Your task to perform on an android device: Search for vegetarian restaurants on Maps Image 0: 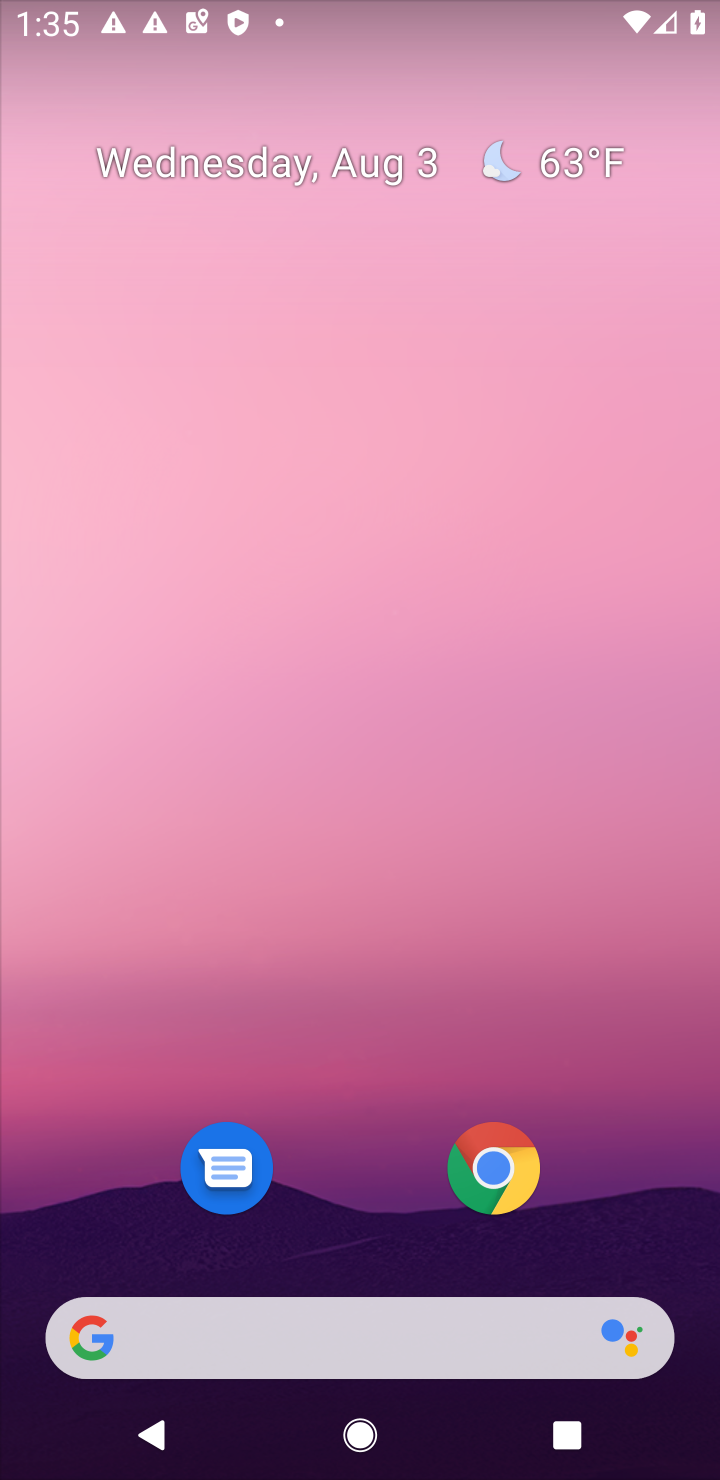
Step 0: drag from (683, 1267) to (599, 389)
Your task to perform on an android device: Search for vegetarian restaurants on Maps Image 1: 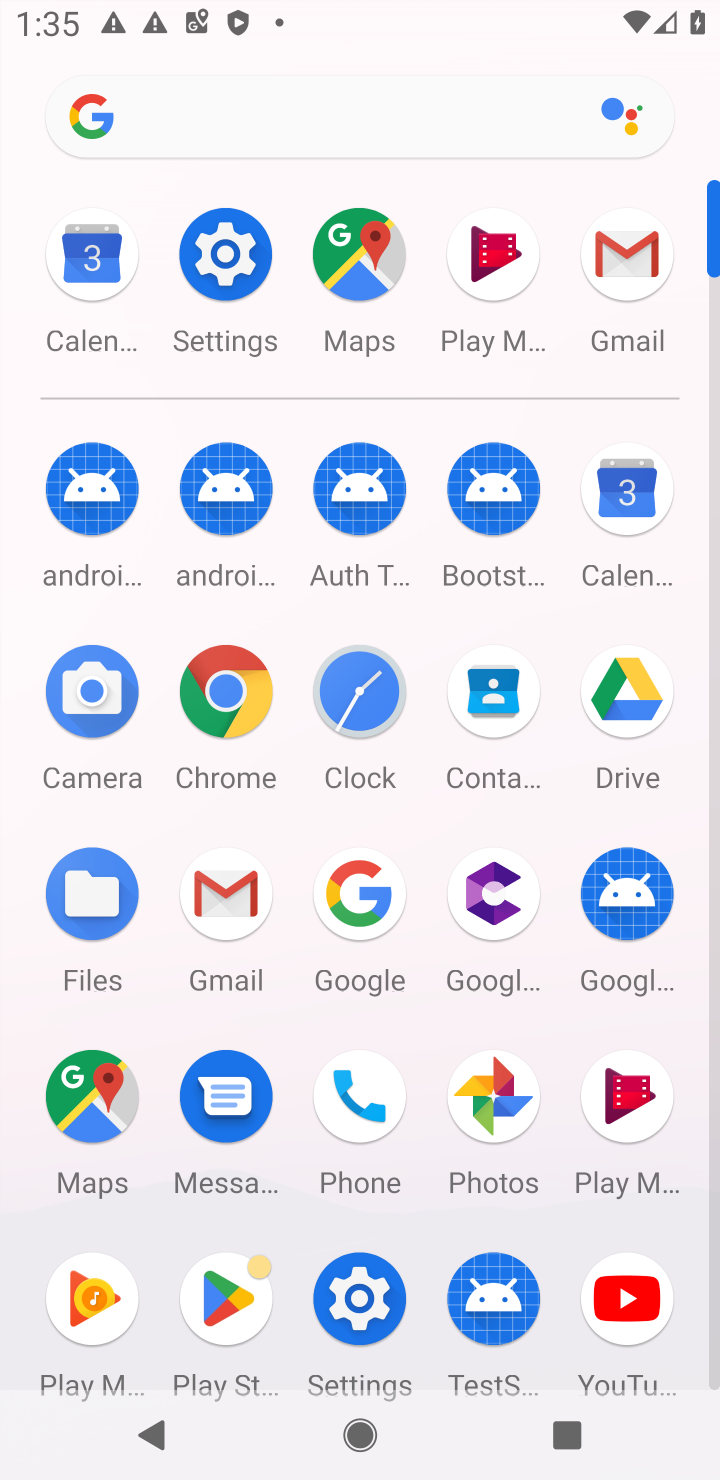
Step 1: click (88, 1102)
Your task to perform on an android device: Search for vegetarian restaurants on Maps Image 2: 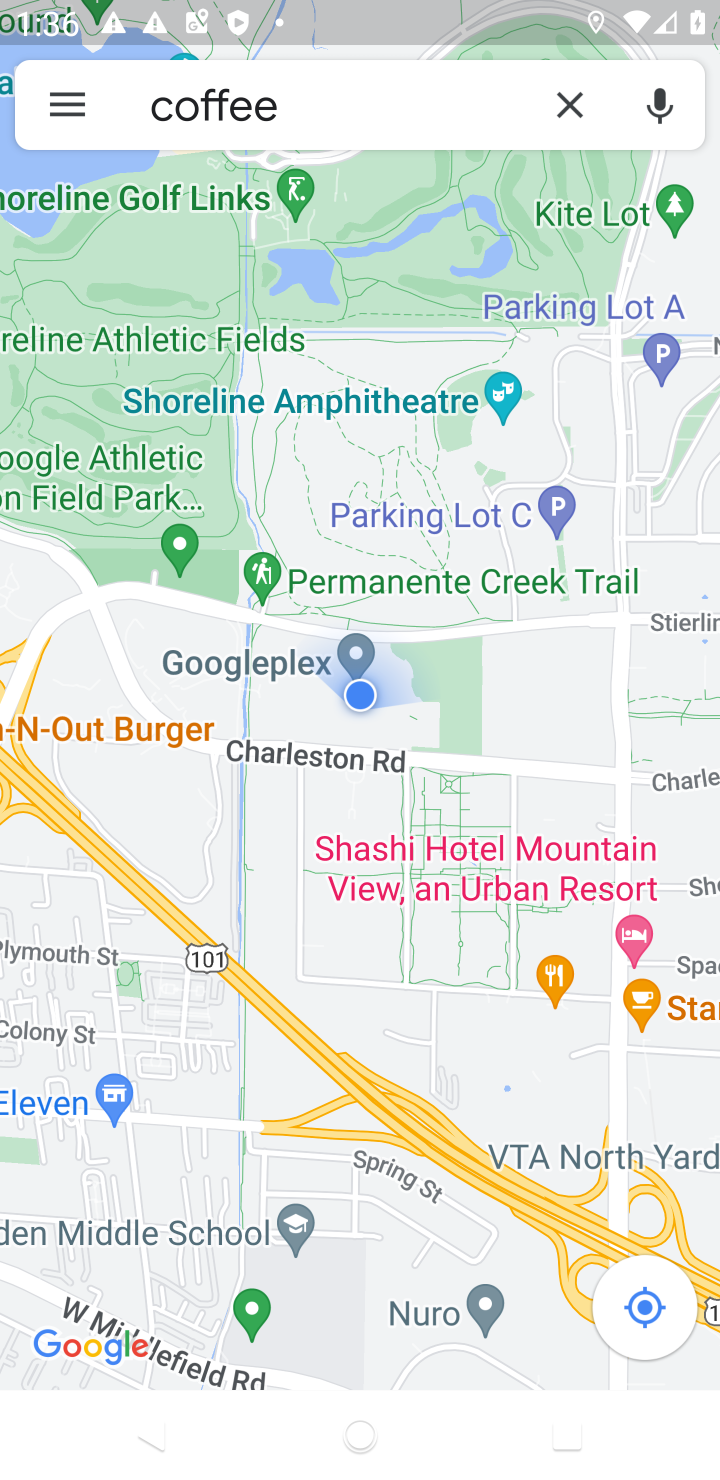
Step 2: click (589, 97)
Your task to perform on an android device: Search for vegetarian restaurants on Maps Image 3: 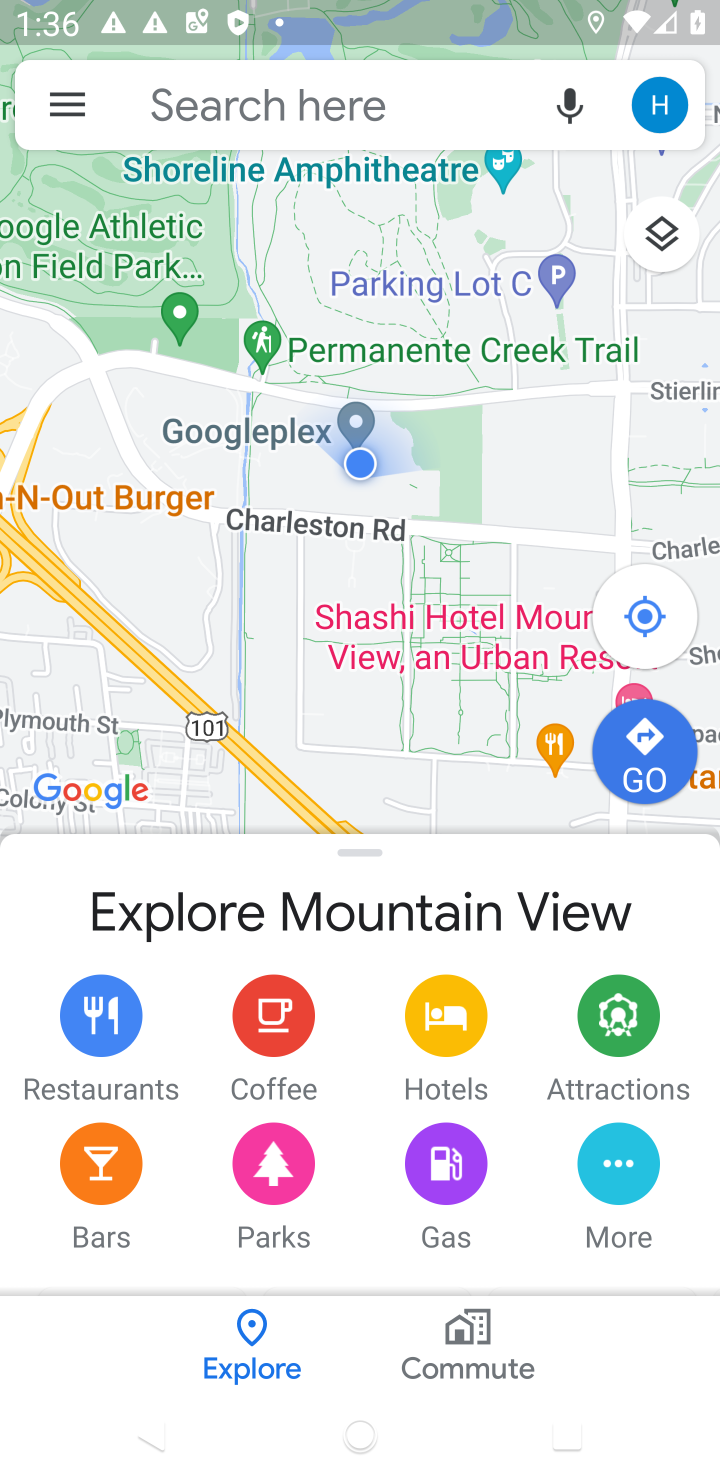
Step 3: click (273, 72)
Your task to perform on an android device: Search for vegetarian restaurants on Maps Image 4: 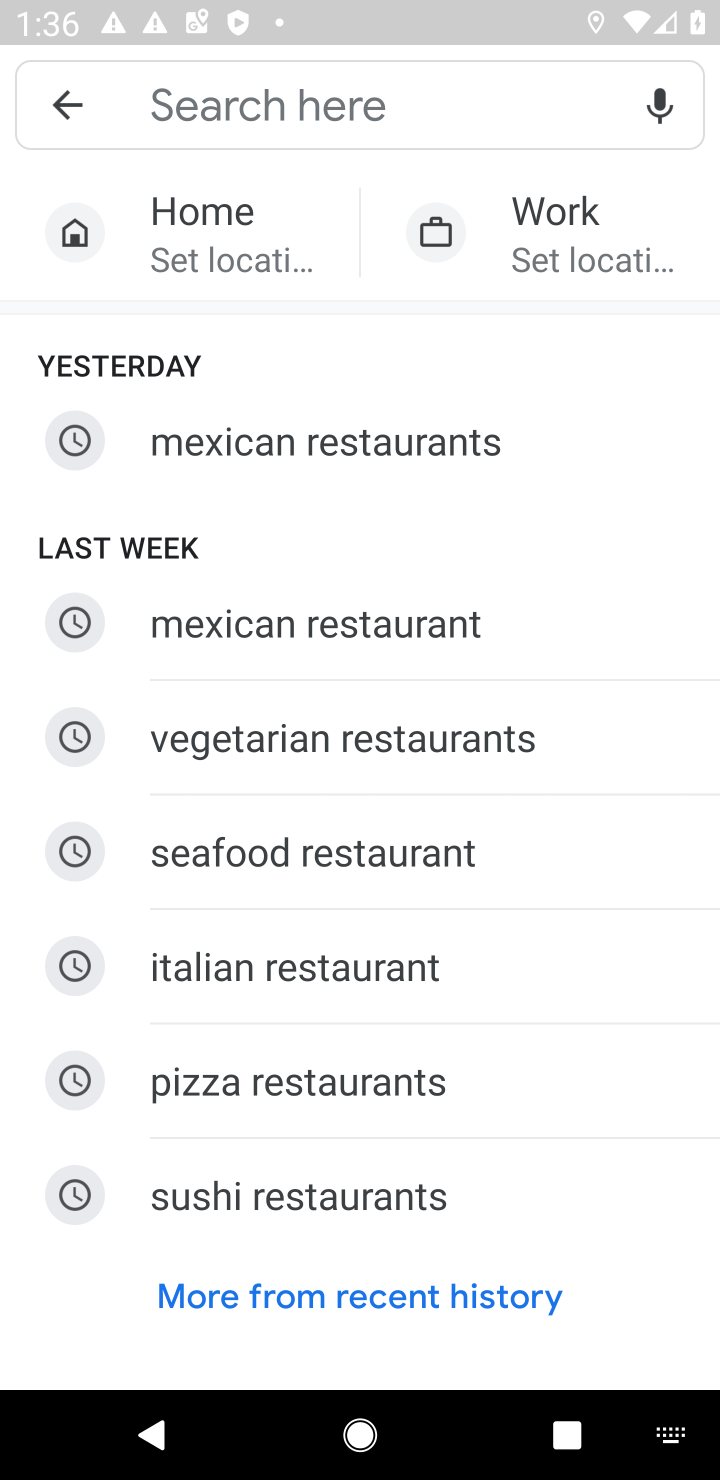
Step 4: type "vegetarian restaurants"
Your task to perform on an android device: Search for vegetarian restaurants on Maps Image 5: 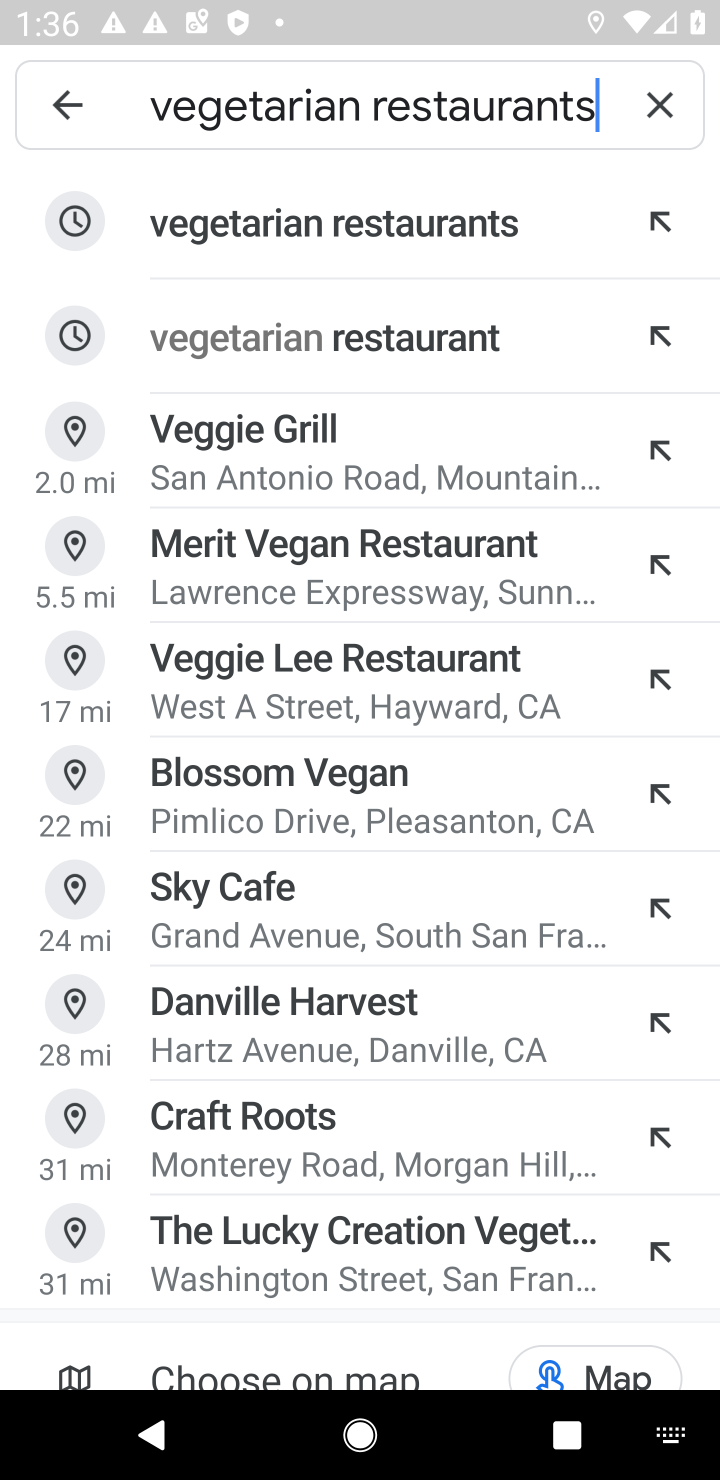
Step 5: click (305, 228)
Your task to perform on an android device: Search for vegetarian restaurants on Maps Image 6: 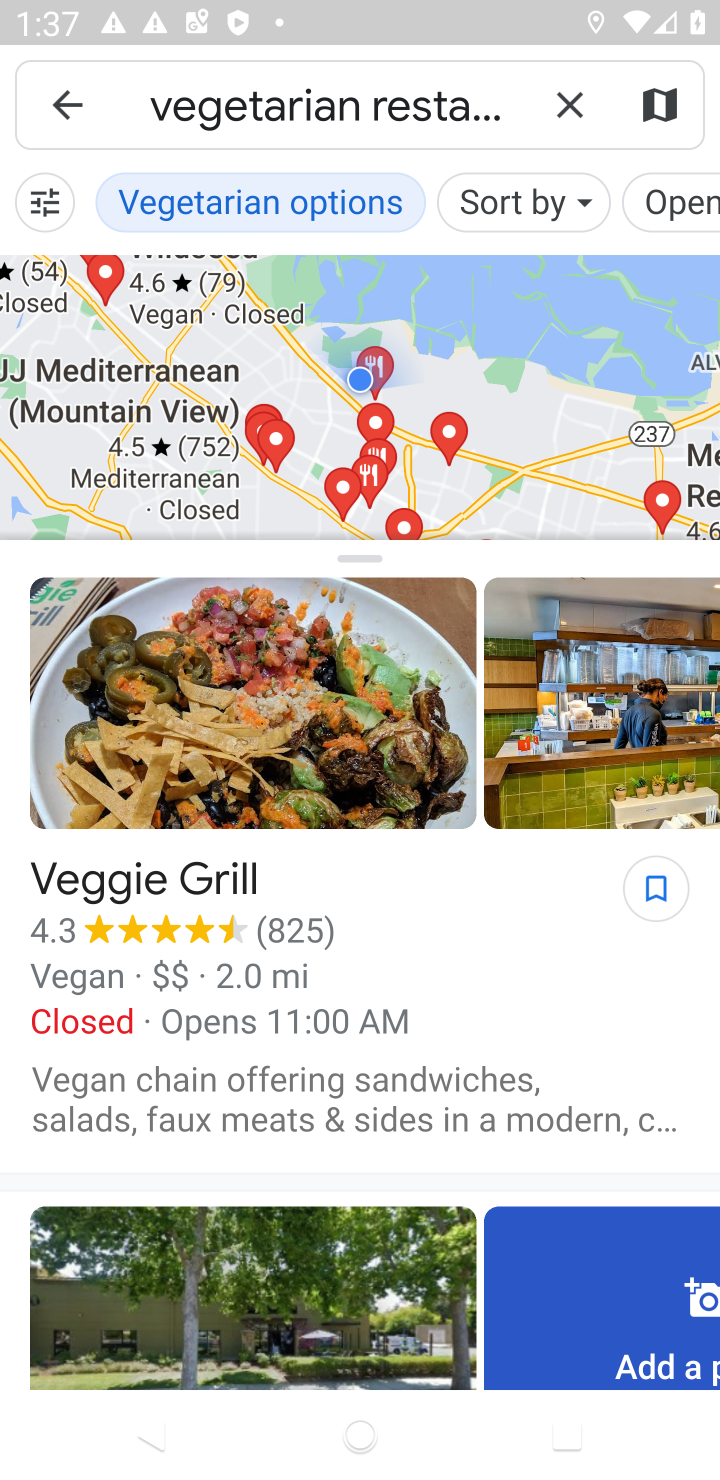
Step 6: task complete